Your task to perform on an android device: find photos in the google photos app Image 0: 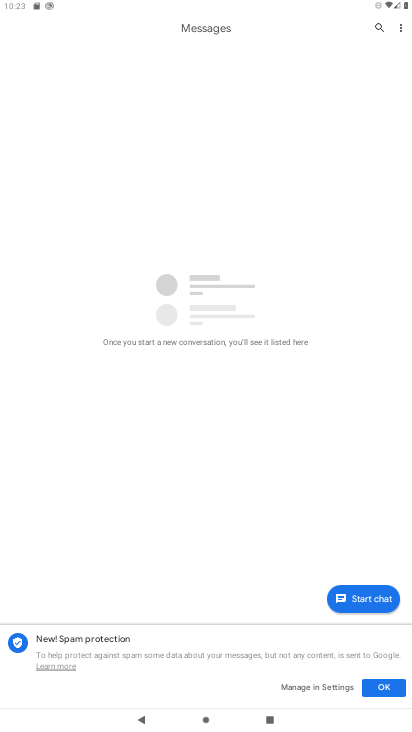
Step 0: press home button
Your task to perform on an android device: find photos in the google photos app Image 1: 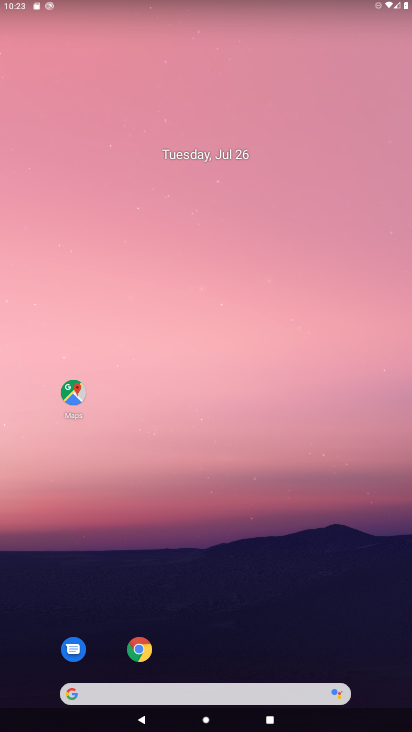
Step 1: drag from (182, 678) to (186, 221)
Your task to perform on an android device: find photos in the google photos app Image 2: 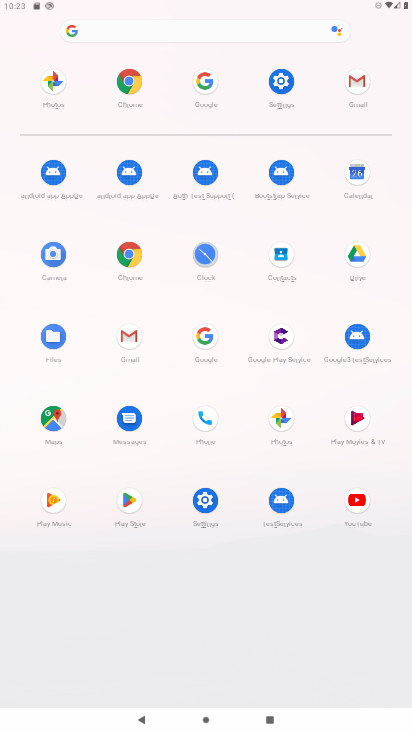
Step 2: click (276, 419)
Your task to perform on an android device: find photos in the google photos app Image 3: 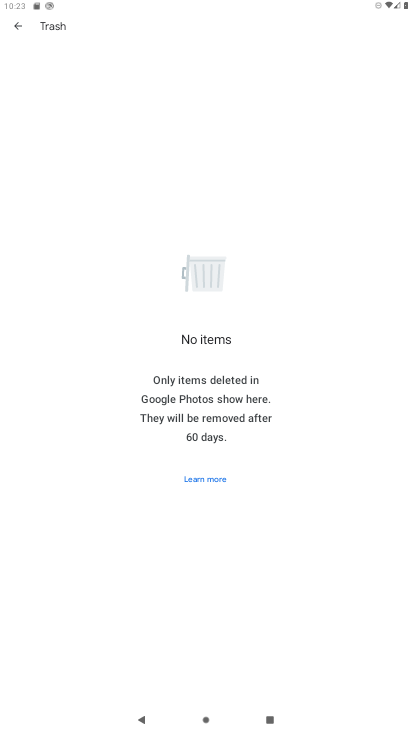
Step 3: task complete